Your task to perform on an android device: turn on notifications settings in the gmail app Image 0: 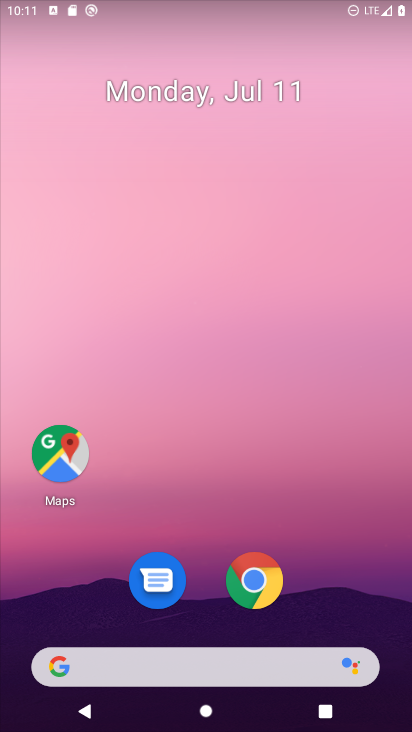
Step 0: drag from (246, 489) to (302, 0)
Your task to perform on an android device: turn on notifications settings in the gmail app Image 1: 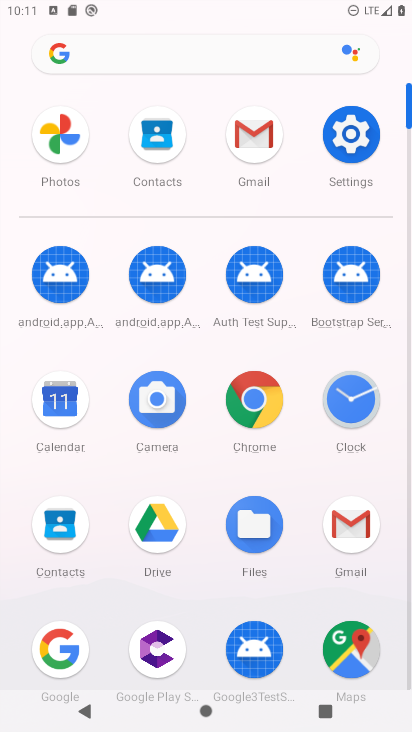
Step 1: click (258, 127)
Your task to perform on an android device: turn on notifications settings in the gmail app Image 2: 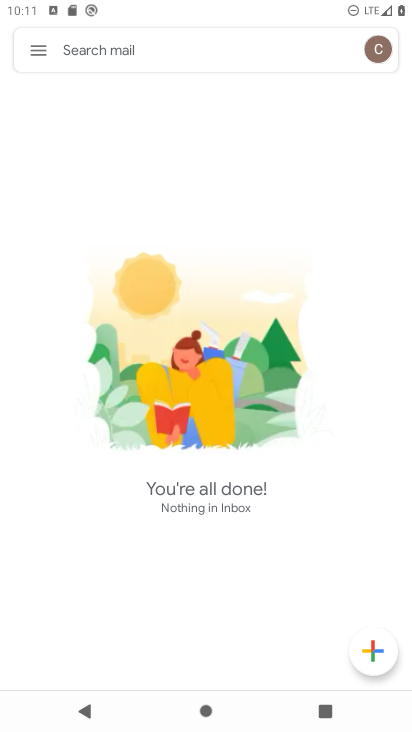
Step 2: click (31, 47)
Your task to perform on an android device: turn on notifications settings in the gmail app Image 3: 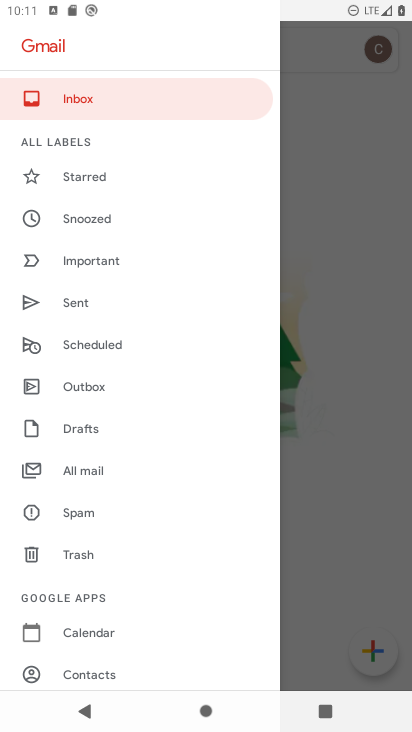
Step 3: drag from (144, 580) to (145, 470)
Your task to perform on an android device: turn on notifications settings in the gmail app Image 4: 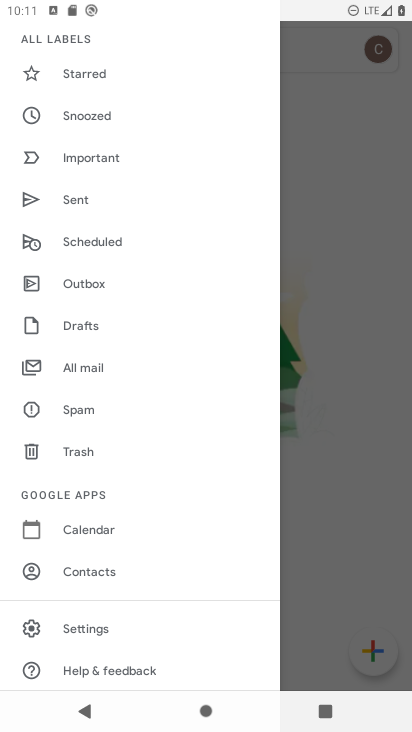
Step 4: click (96, 618)
Your task to perform on an android device: turn on notifications settings in the gmail app Image 5: 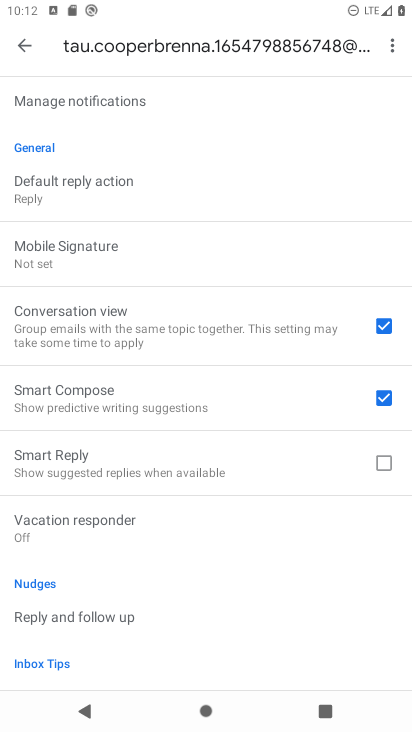
Step 5: drag from (110, 123) to (175, 366)
Your task to perform on an android device: turn on notifications settings in the gmail app Image 6: 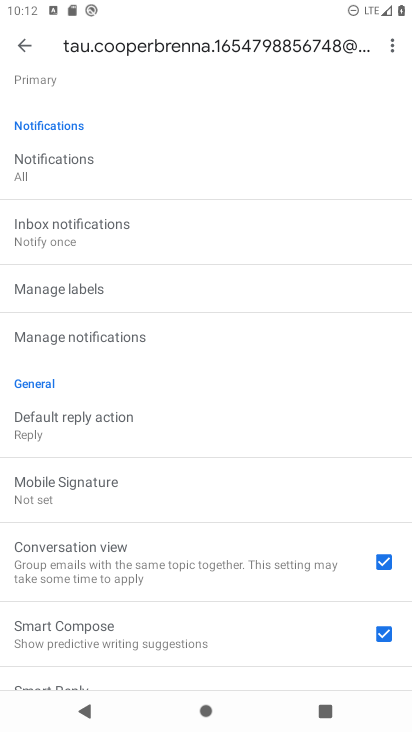
Step 6: click (147, 339)
Your task to perform on an android device: turn on notifications settings in the gmail app Image 7: 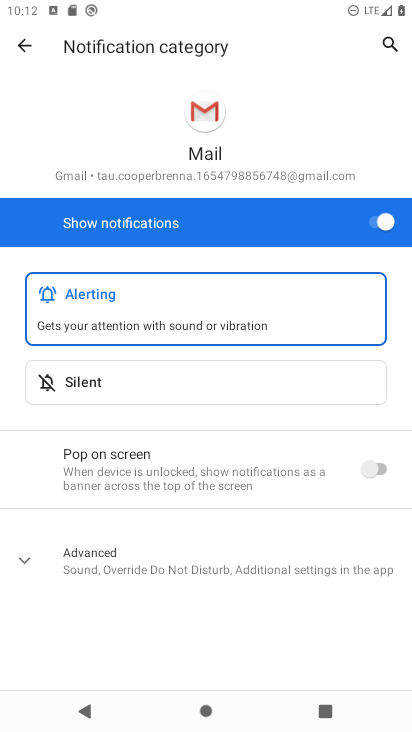
Step 7: task complete